Your task to perform on an android device: turn on location history Image 0: 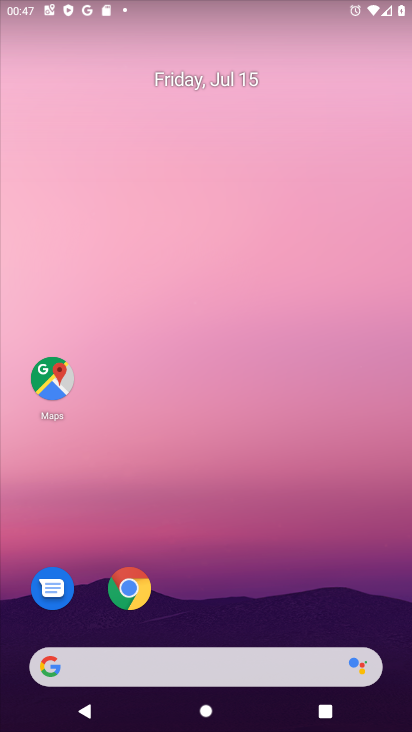
Step 0: press home button
Your task to perform on an android device: turn on location history Image 1: 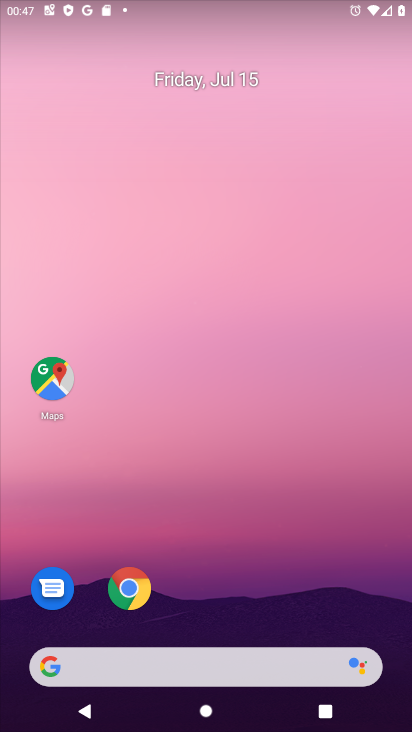
Step 1: drag from (143, 670) to (283, 159)
Your task to perform on an android device: turn on location history Image 2: 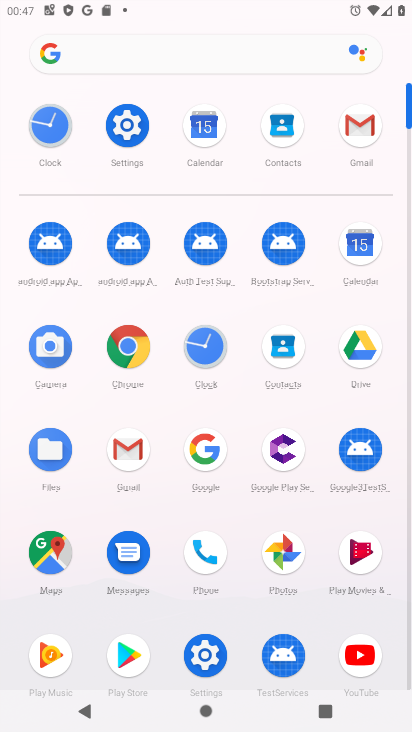
Step 2: click (129, 129)
Your task to perform on an android device: turn on location history Image 3: 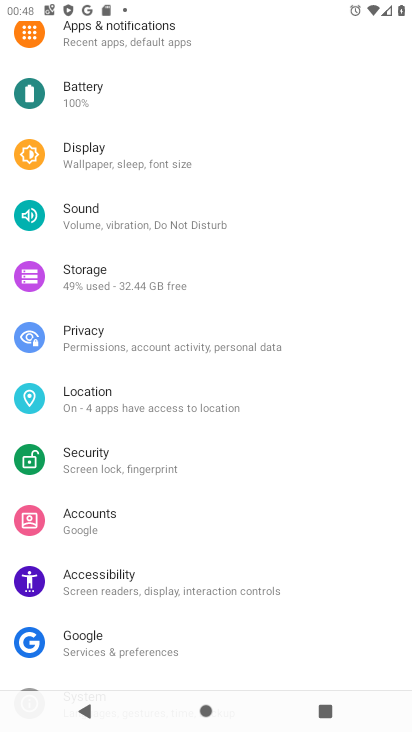
Step 3: click (113, 402)
Your task to perform on an android device: turn on location history Image 4: 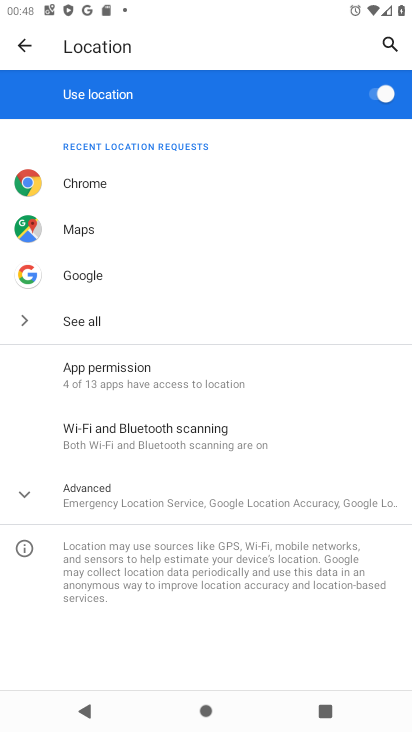
Step 4: click (103, 494)
Your task to perform on an android device: turn on location history Image 5: 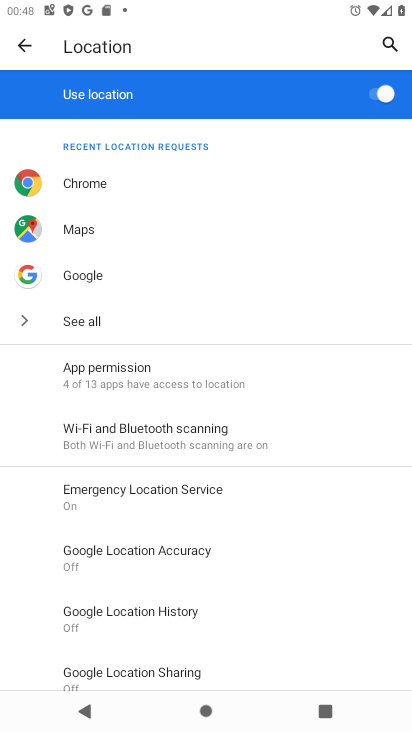
Step 5: drag from (257, 552) to (394, 248)
Your task to perform on an android device: turn on location history Image 6: 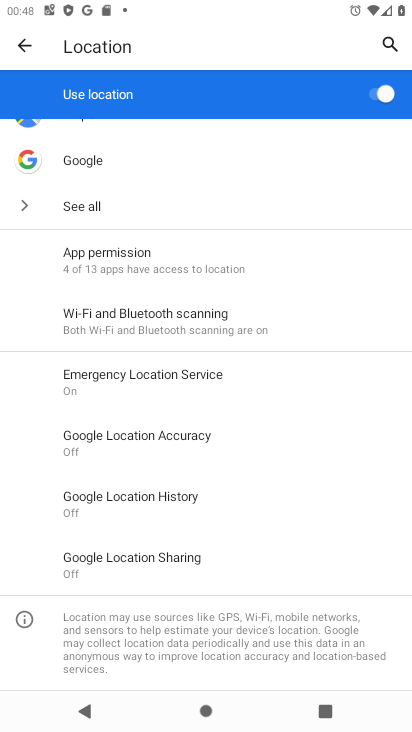
Step 6: click (161, 491)
Your task to perform on an android device: turn on location history Image 7: 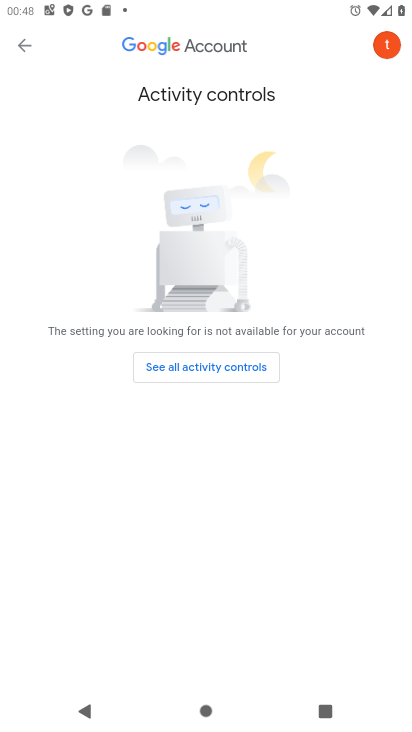
Step 7: task complete